Your task to perform on an android device: Search for Mexican restaurants on Maps Image 0: 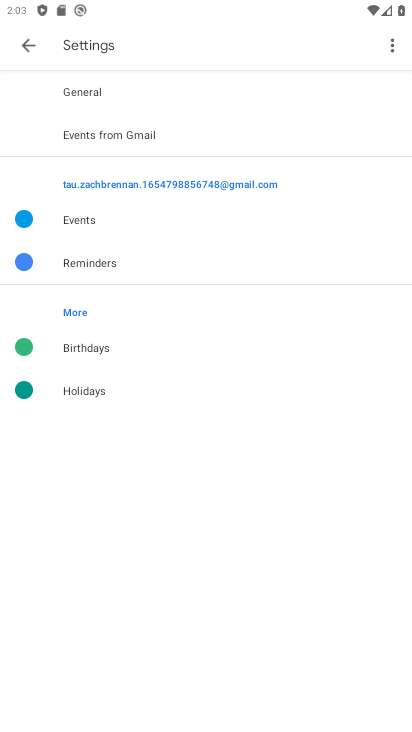
Step 0: press home button
Your task to perform on an android device: Search for Mexican restaurants on Maps Image 1: 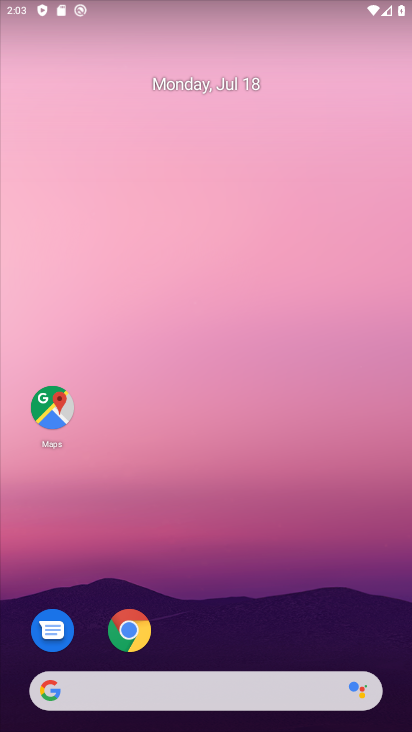
Step 1: click (55, 407)
Your task to perform on an android device: Search for Mexican restaurants on Maps Image 2: 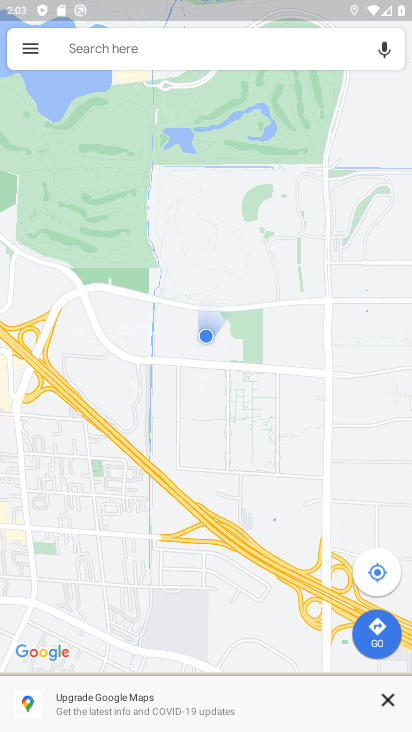
Step 2: click (150, 45)
Your task to perform on an android device: Search for Mexican restaurants on Maps Image 3: 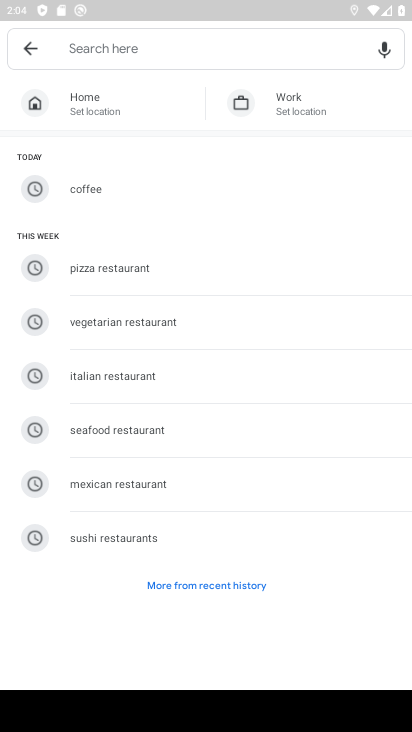
Step 3: type "mexican restaurants"
Your task to perform on an android device: Search for Mexican restaurants on Maps Image 4: 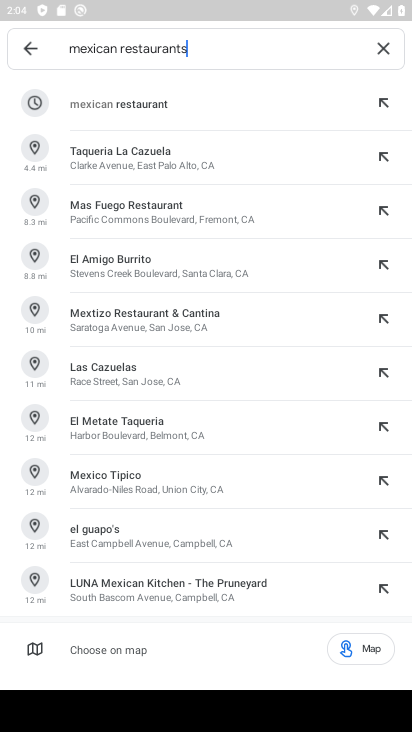
Step 4: click (98, 97)
Your task to perform on an android device: Search for Mexican restaurants on Maps Image 5: 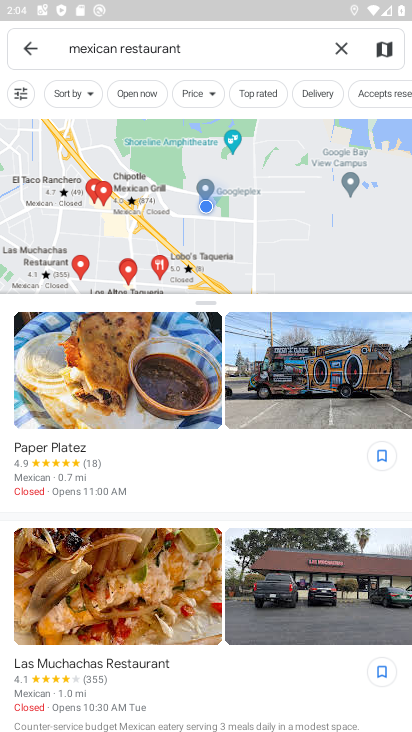
Step 5: task complete